Your task to perform on an android device: Go to Yahoo.com Image 0: 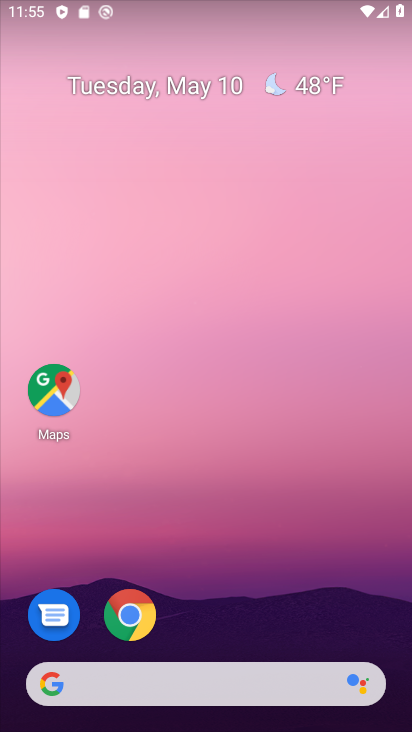
Step 0: drag from (335, 566) to (353, 299)
Your task to perform on an android device: Go to Yahoo.com Image 1: 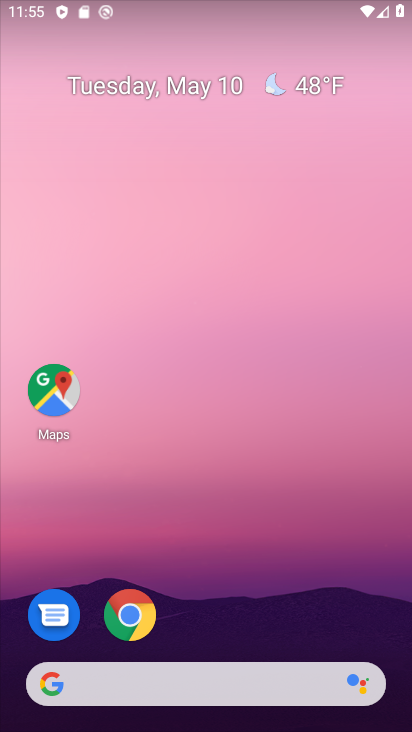
Step 1: click (276, 41)
Your task to perform on an android device: Go to Yahoo.com Image 2: 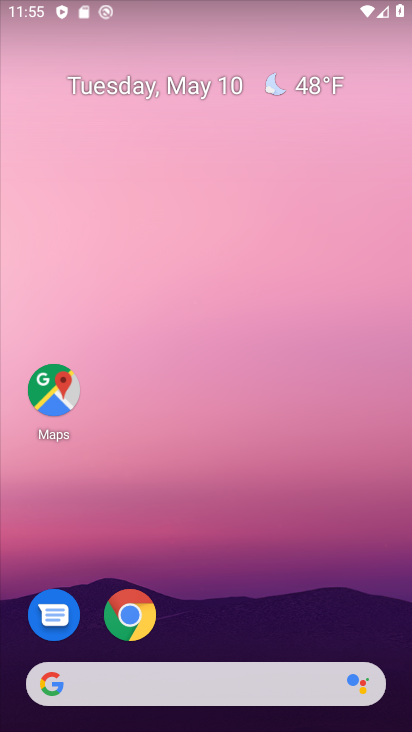
Step 2: drag from (10, 184) to (196, 1)
Your task to perform on an android device: Go to Yahoo.com Image 3: 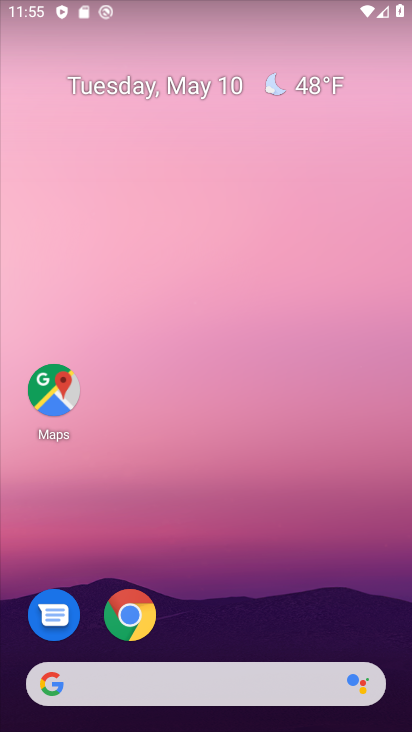
Step 3: click (175, 19)
Your task to perform on an android device: Go to Yahoo.com Image 4: 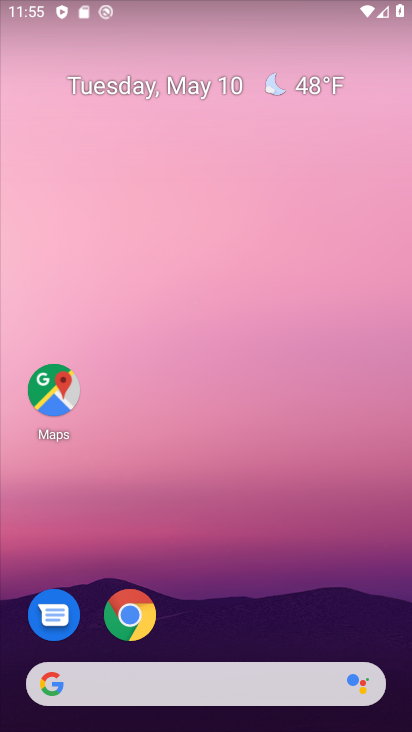
Step 4: drag from (219, 587) to (161, 148)
Your task to perform on an android device: Go to Yahoo.com Image 5: 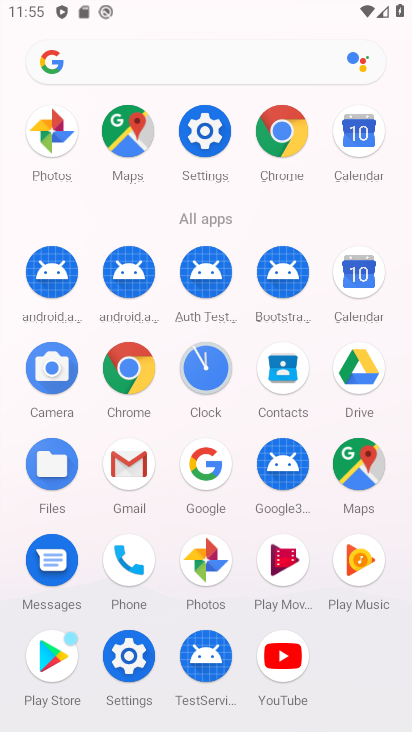
Step 5: click (280, 171)
Your task to perform on an android device: Go to Yahoo.com Image 6: 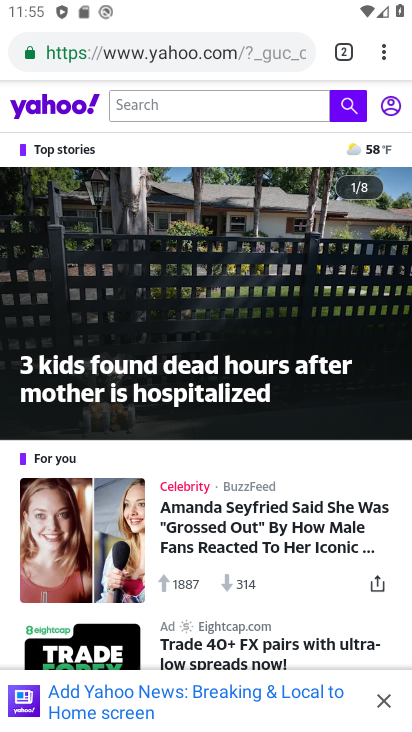
Step 6: task complete